Your task to perform on an android device: Play the last video I watched on Youtube Image 0: 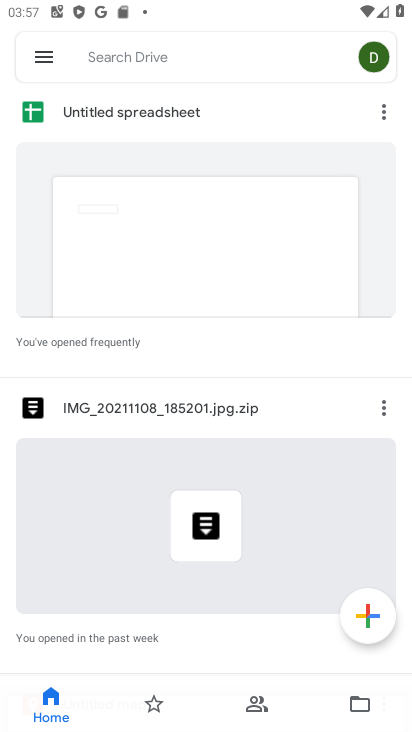
Step 0: press home button
Your task to perform on an android device: Play the last video I watched on Youtube Image 1: 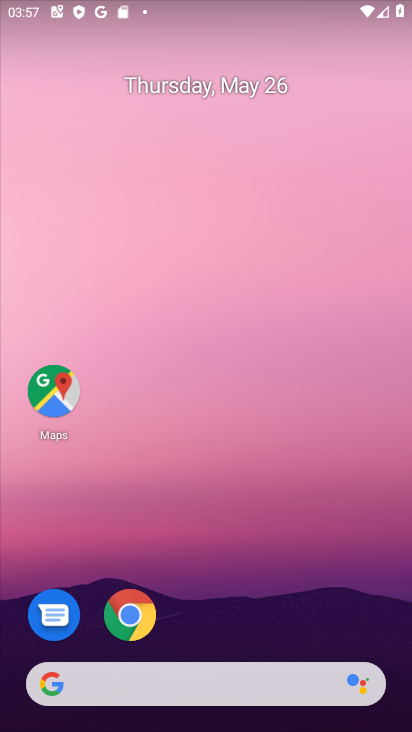
Step 1: drag from (181, 642) to (193, 156)
Your task to perform on an android device: Play the last video I watched on Youtube Image 2: 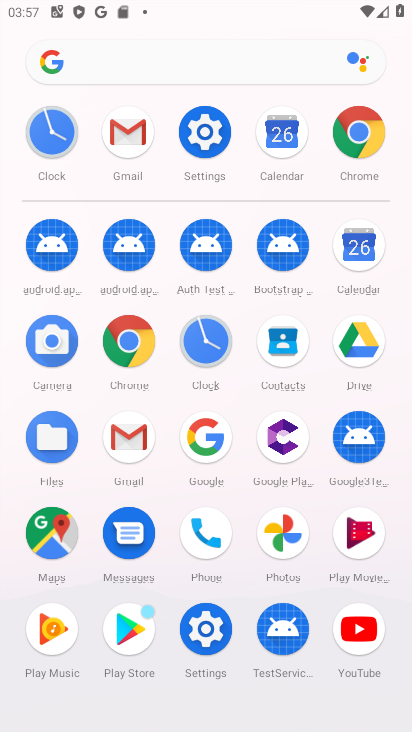
Step 2: click (364, 633)
Your task to perform on an android device: Play the last video I watched on Youtube Image 3: 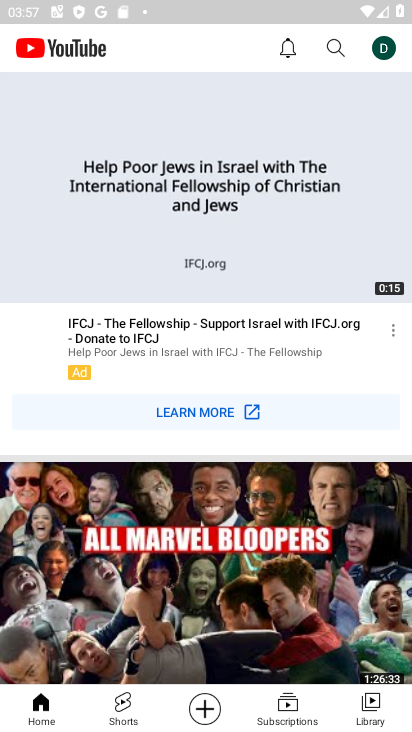
Step 3: click (377, 714)
Your task to perform on an android device: Play the last video I watched on Youtube Image 4: 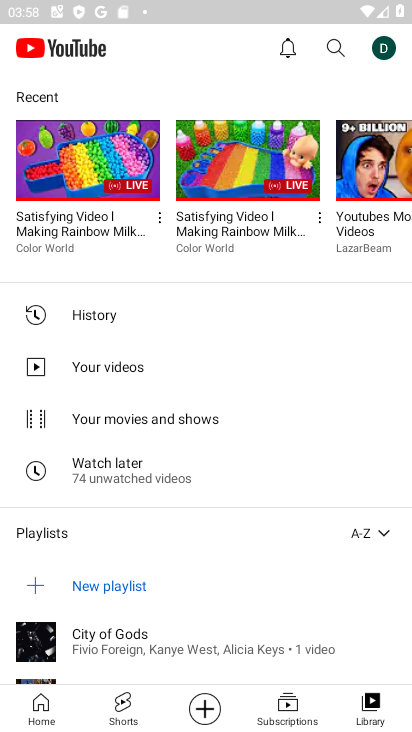
Step 4: task complete